Your task to perform on an android device: turn smart compose on in the gmail app Image 0: 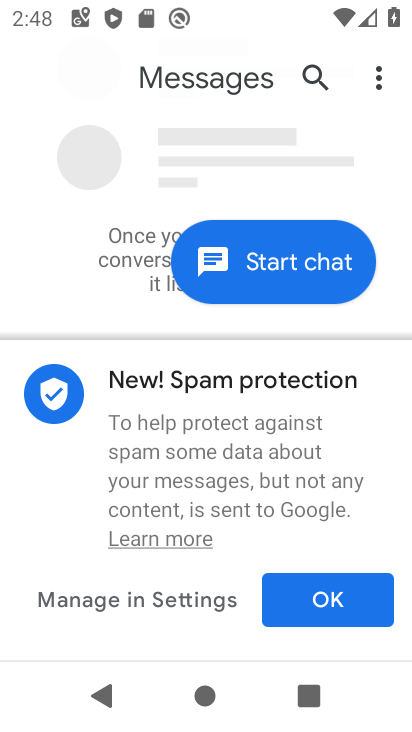
Step 0: press home button
Your task to perform on an android device: turn smart compose on in the gmail app Image 1: 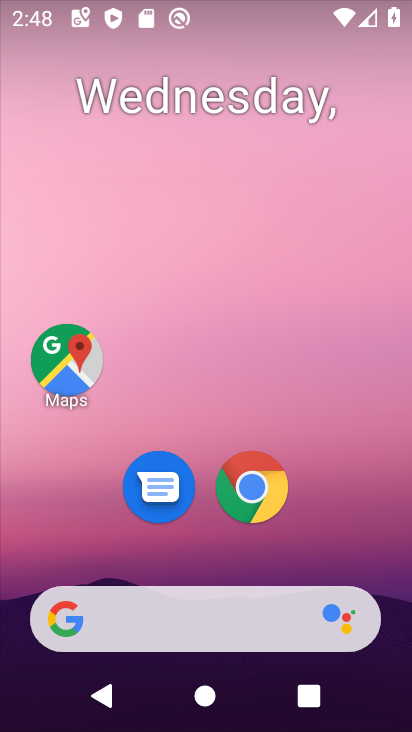
Step 1: drag from (332, 539) to (361, 175)
Your task to perform on an android device: turn smart compose on in the gmail app Image 2: 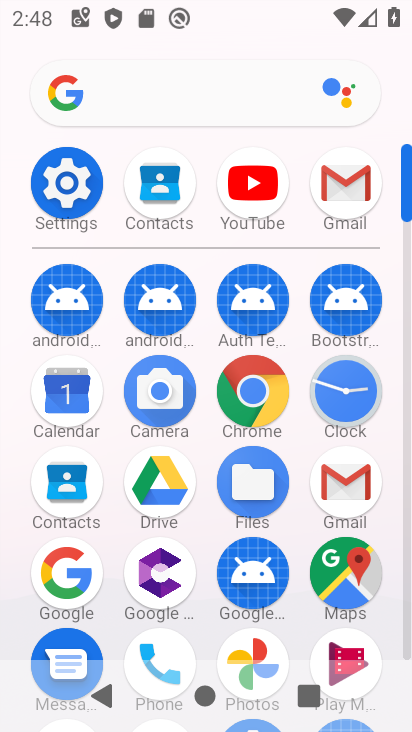
Step 2: click (359, 480)
Your task to perform on an android device: turn smart compose on in the gmail app Image 3: 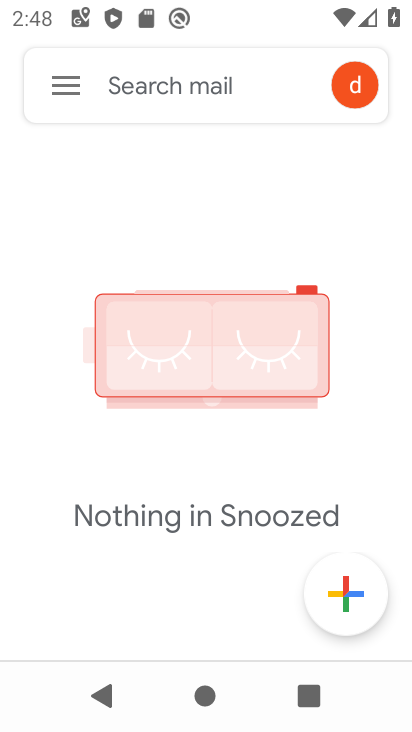
Step 3: click (67, 91)
Your task to perform on an android device: turn smart compose on in the gmail app Image 4: 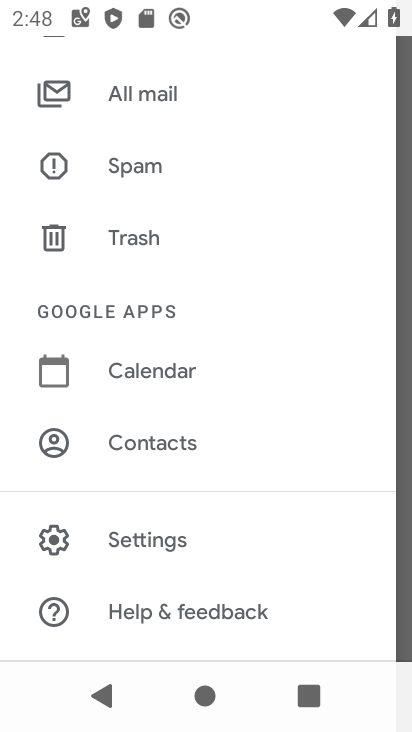
Step 4: drag from (275, 244) to (266, 351)
Your task to perform on an android device: turn smart compose on in the gmail app Image 5: 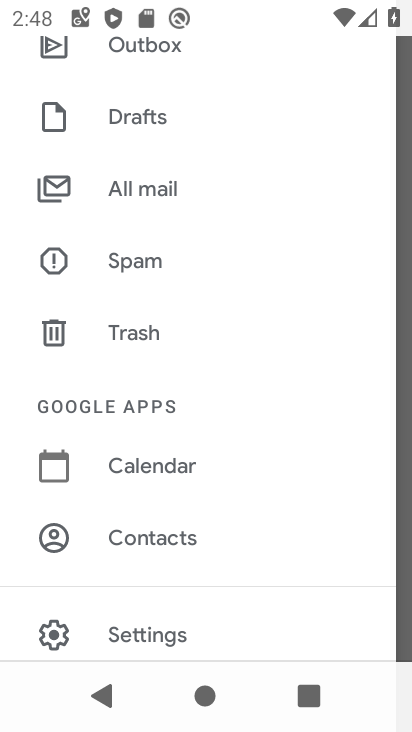
Step 5: drag from (268, 189) to (262, 322)
Your task to perform on an android device: turn smart compose on in the gmail app Image 6: 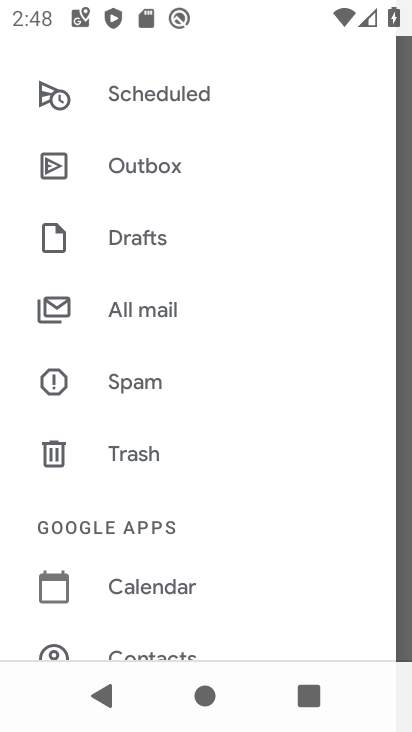
Step 6: drag from (285, 181) to (295, 299)
Your task to perform on an android device: turn smart compose on in the gmail app Image 7: 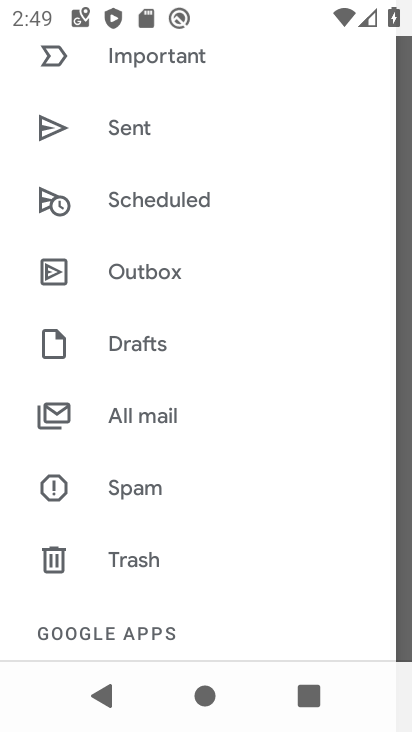
Step 7: drag from (299, 147) to (315, 287)
Your task to perform on an android device: turn smart compose on in the gmail app Image 8: 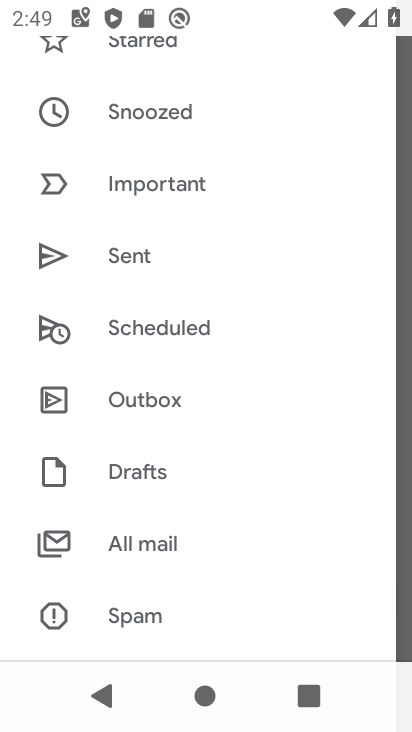
Step 8: drag from (316, 325) to (335, 217)
Your task to perform on an android device: turn smart compose on in the gmail app Image 9: 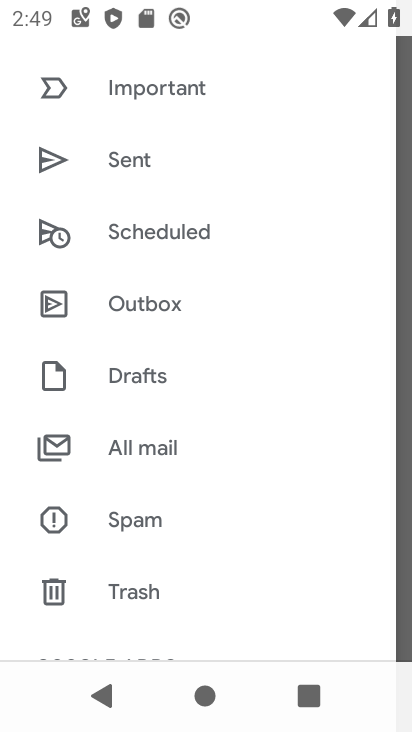
Step 9: drag from (334, 324) to (339, 243)
Your task to perform on an android device: turn smart compose on in the gmail app Image 10: 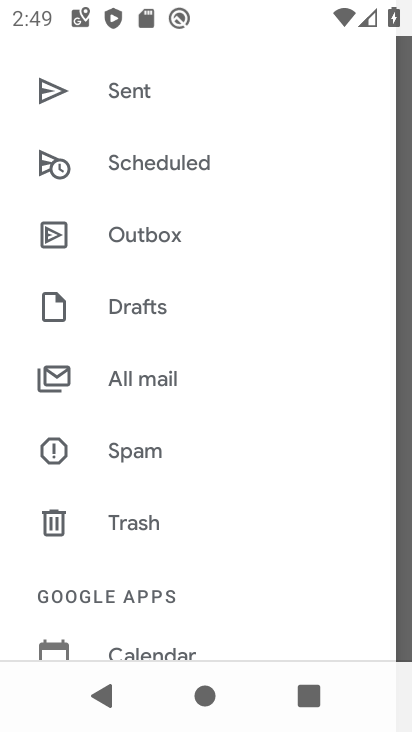
Step 10: drag from (331, 323) to (332, 209)
Your task to perform on an android device: turn smart compose on in the gmail app Image 11: 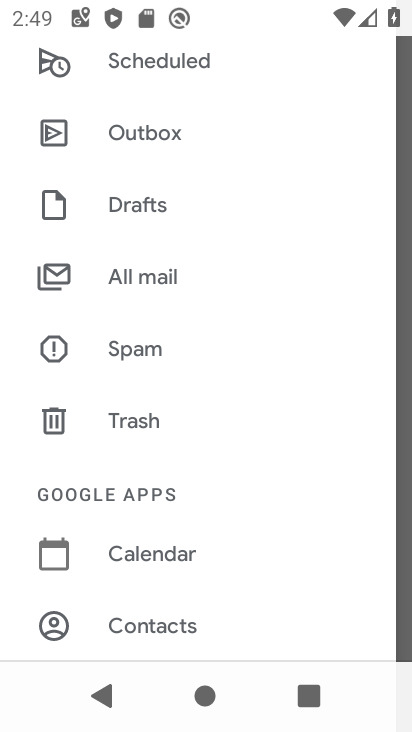
Step 11: drag from (299, 357) to (309, 193)
Your task to perform on an android device: turn smart compose on in the gmail app Image 12: 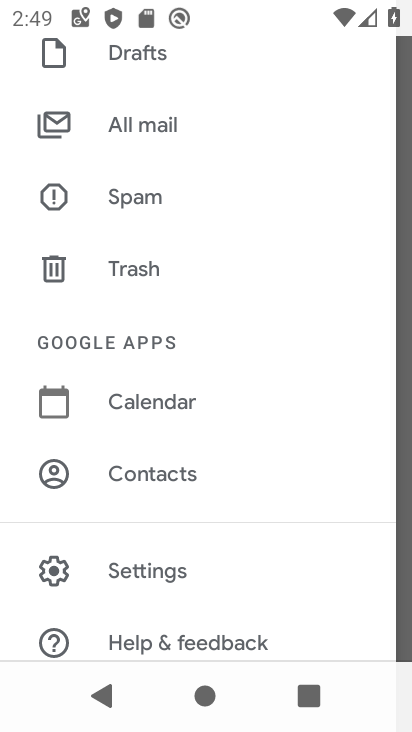
Step 12: drag from (284, 416) to (290, 289)
Your task to perform on an android device: turn smart compose on in the gmail app Image 13: 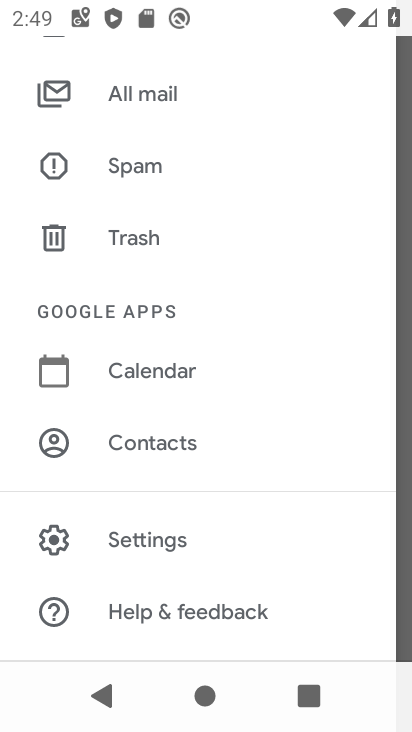
Step 13: click (225, 533)
Your task to perform on an android device: turn smart compose on in the gmail app Image 14: 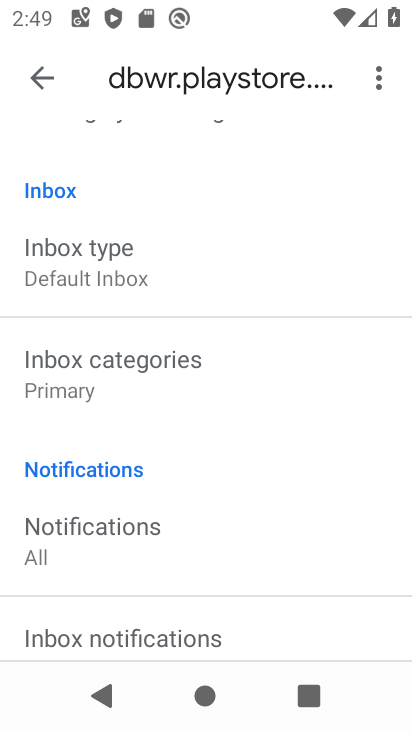
Step 14: task complete